Your task to perform on an android device: Search for "macbook air" on amazon.com, select the first entry, add it to the cart, then select checkout. Image 0: 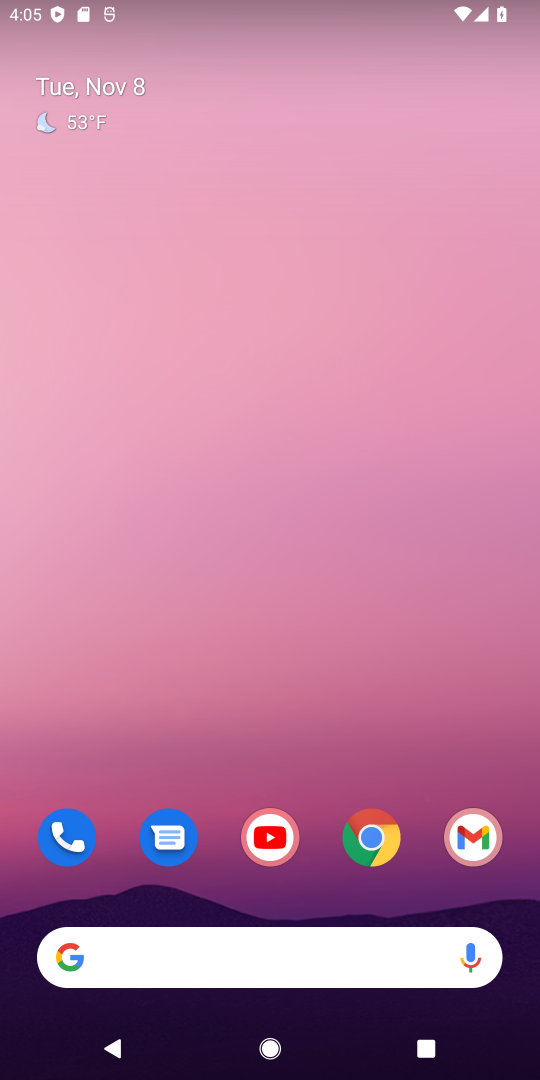
Step 0: press home button
Your task to perform on an android device: Search for "macbook air" on amazon.com, select the first entry, add it to the cart, then select checkout. Image 1: 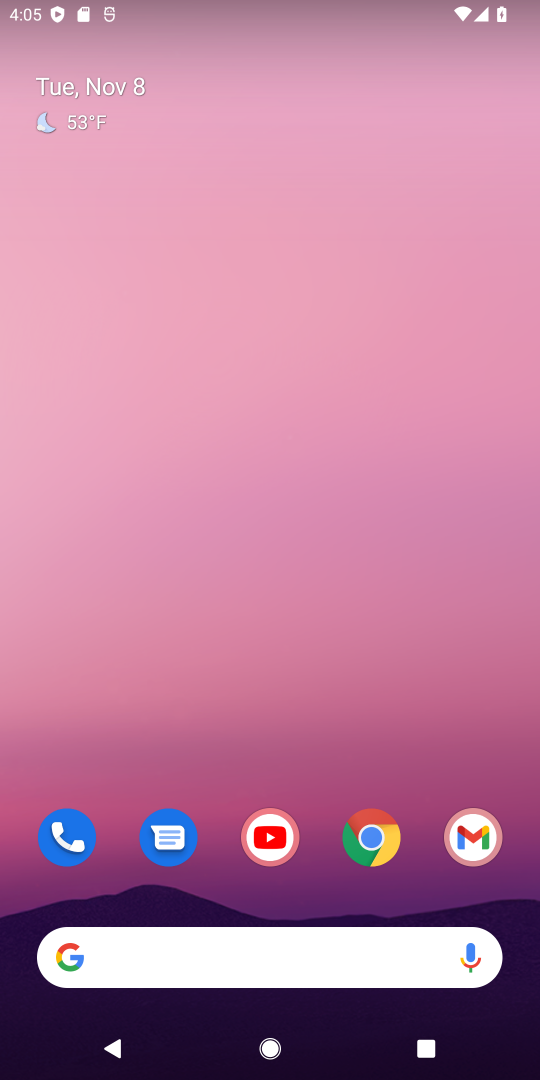
Step 1: click (388, 848)
Your task to perform on an android device: Search for "macbook air" on amazon.com, select the first entry, add it to the cart, then select checkout. Image 2: 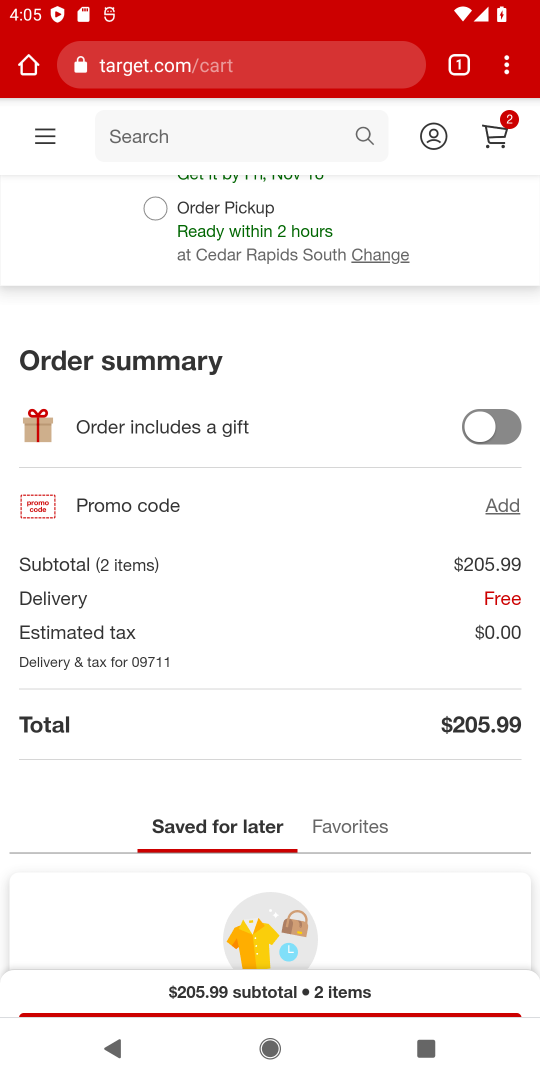
Step 2: click (148, 62)
Your task to perform on an android device: Search for "macbook air" on amazon.com, select the first entry, add it to the cart, then select checkout. Image 3: 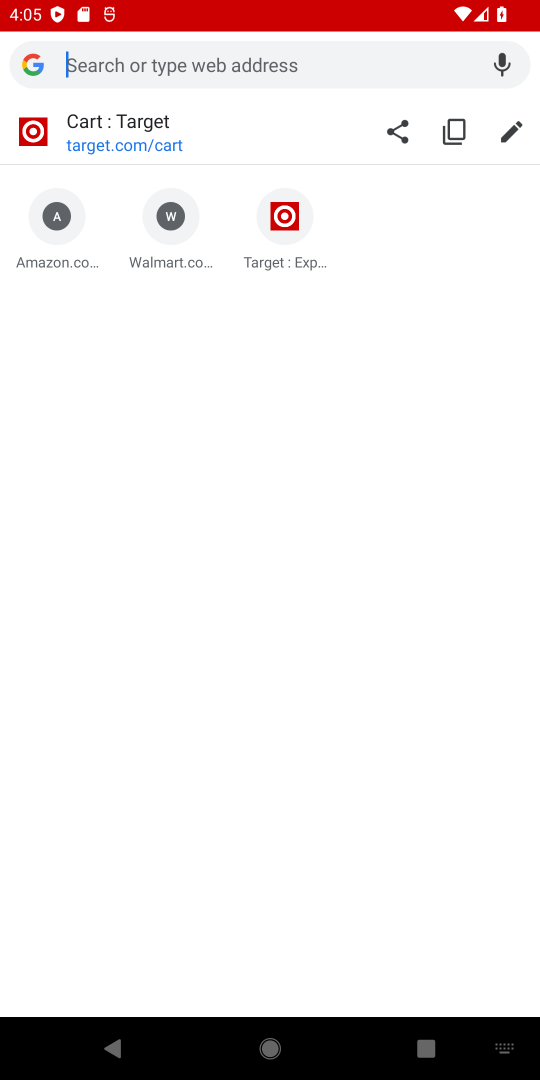
Step 3: type "amazon"
Your task to perform on an android device: Search for "macbook air" on amazon.com, select the first entry, add it to the cart, then select checkout. Image 4: 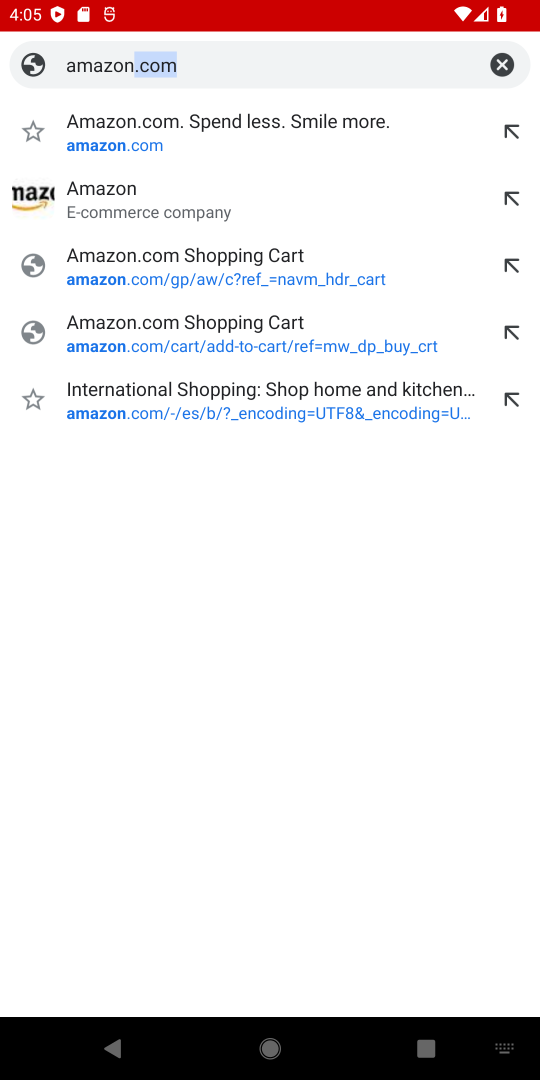
Step 4: click (108, 200)
Your task to perform on an android device: Search for "macbook air" on amazon.com, select the first entry, add it to the cart, then select checkout. Image 5: 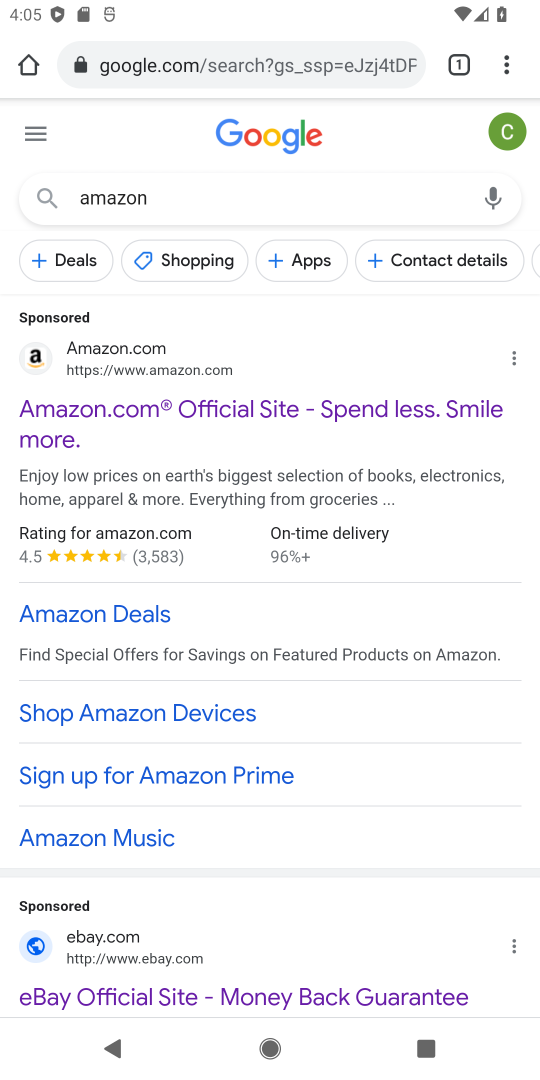
Step 5: click (78, 411)
Your task to perform on an android device: Search for "macbook air" on amazon.com, select the first entry, add it to the cart, then select checkout. Image 6: 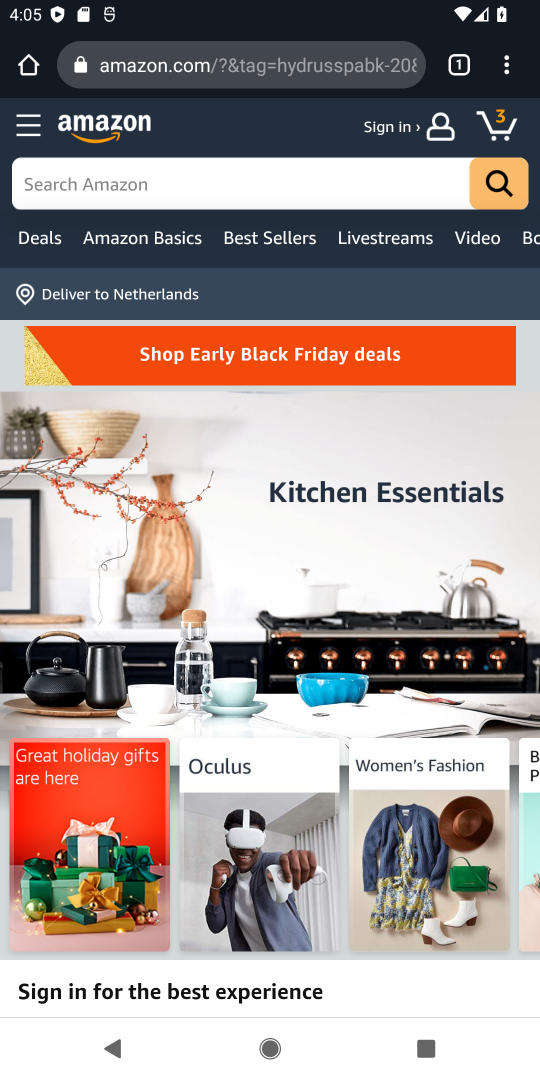
Step 6: click (66, 176)
Your task to perform on an android device: Search for "macbook air" on amazon.com, select the first entry, add it to the cart, then select checkout. Image 7: 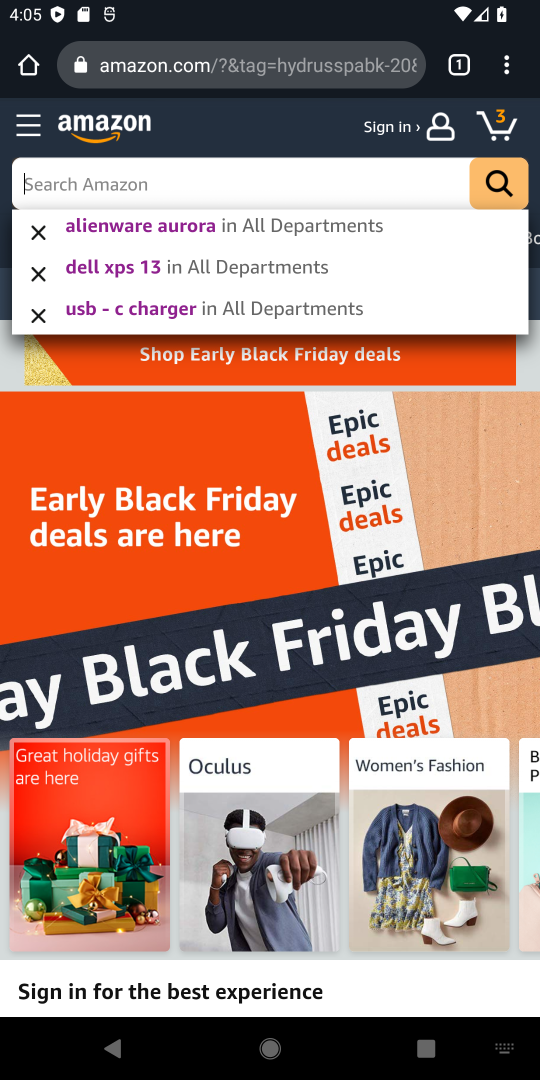
Step 7: type "macbook air"
Your task to perform on an android device: Search for "macbook air" on amazon.com, select the first entry, add it to the cart, then select checkout. Image 8: 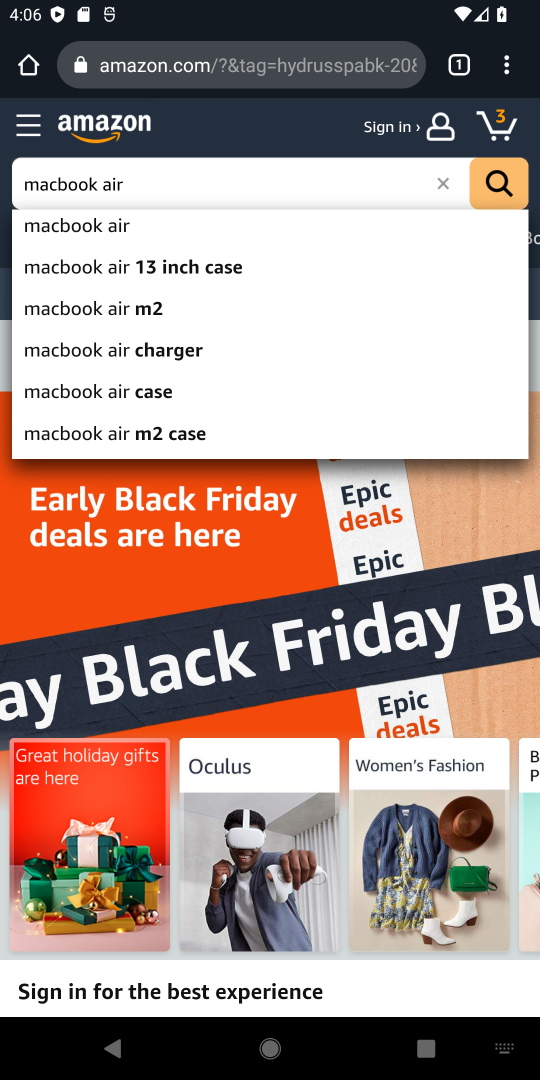
Step 8: click (65, 207)
Your task to perform on an android device: Search for "macbook air" on amazon.com, select the first entry, add it to the cart, then select checkout. Image 9: 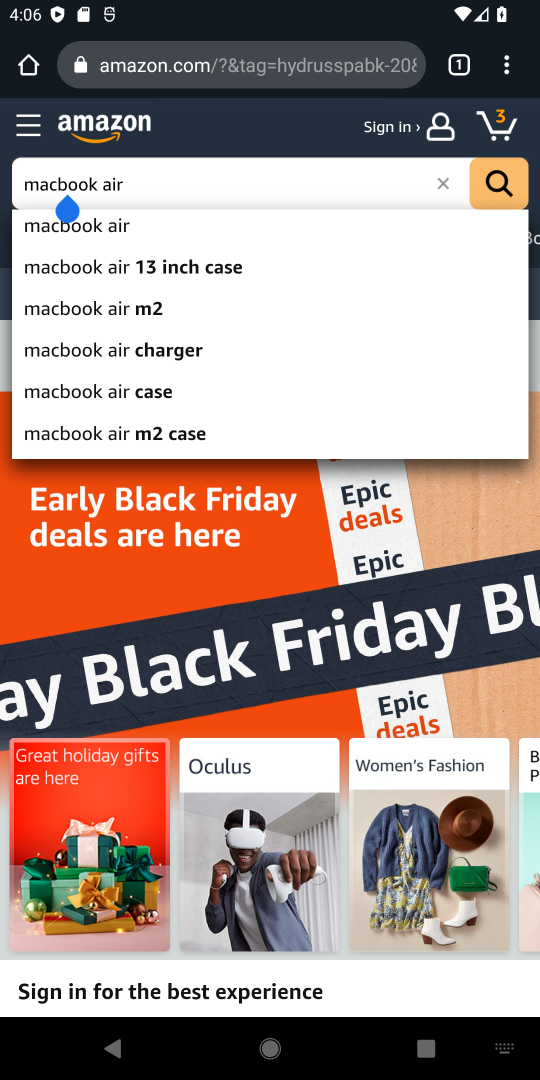
Step 9: click (115, 270)
Your task to perform on an android device: Search for "macbook air" on amazon.com, select the first entry, add it to the cart, then select checkout. Image 10: 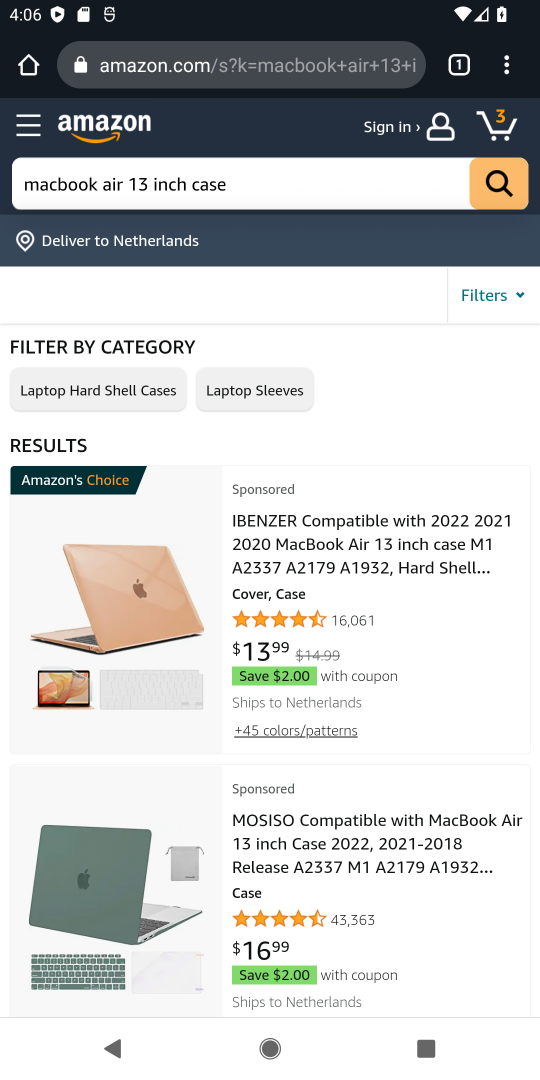
Step 10: drag from (92, 804) to (343, 387)
Your task to perform on an android device: Search for "macbook air" on amazon.com, select the first entry, add it to the cart, then select checkout. Image 11: 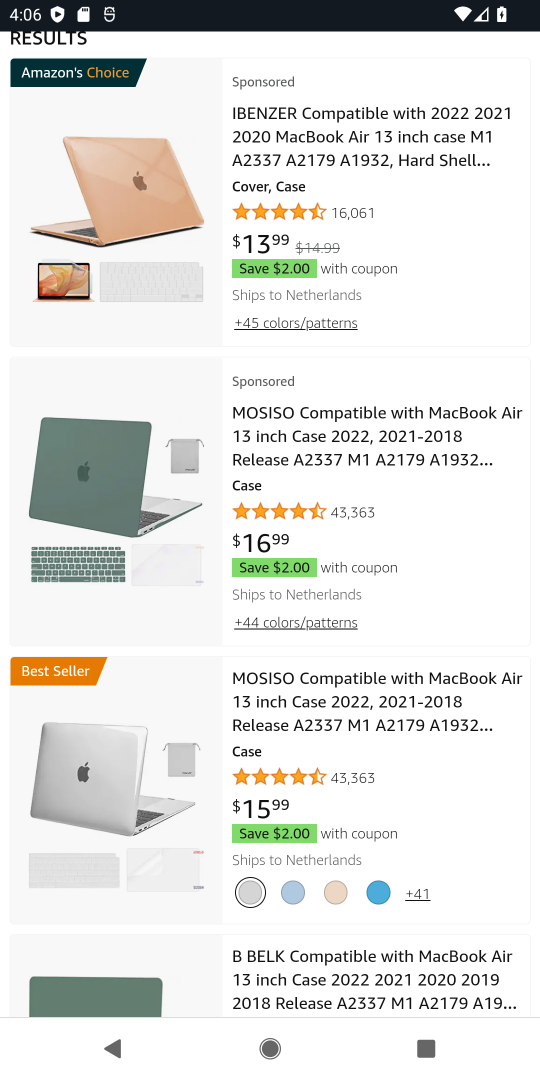
Step 11: click (342, 671)
Your task to perform on an android device: Search for "macbook air" on amazon.com, select the first entry, add it to the cart, then select checkout. Image 12: 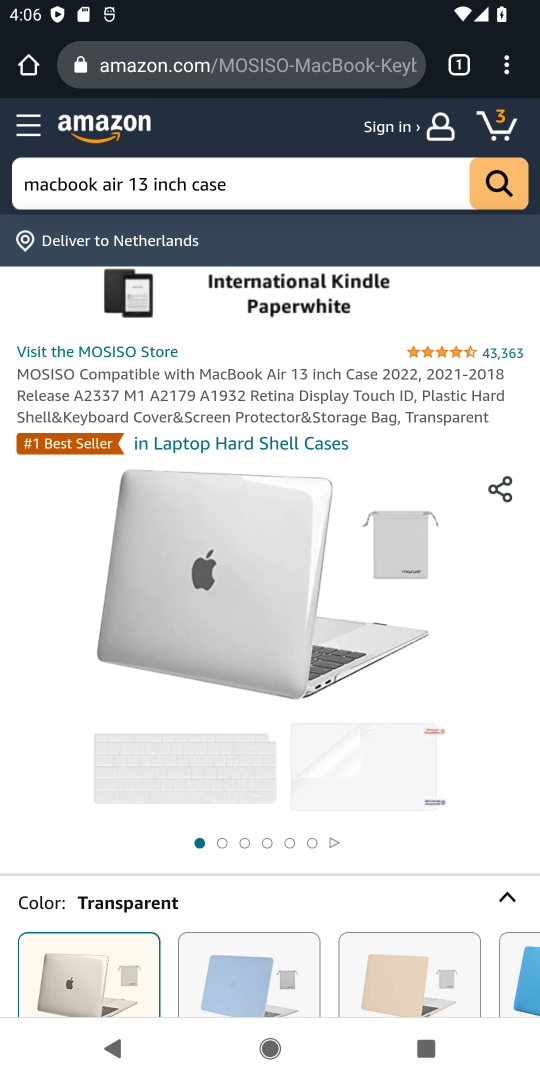
Step 12: drag from (294, 661) to (361, 238)
Your task to perform on an android device: Search for "macbook air" on amazon.com, select the first entry, add it to the cart, then select checkout. Image 13: 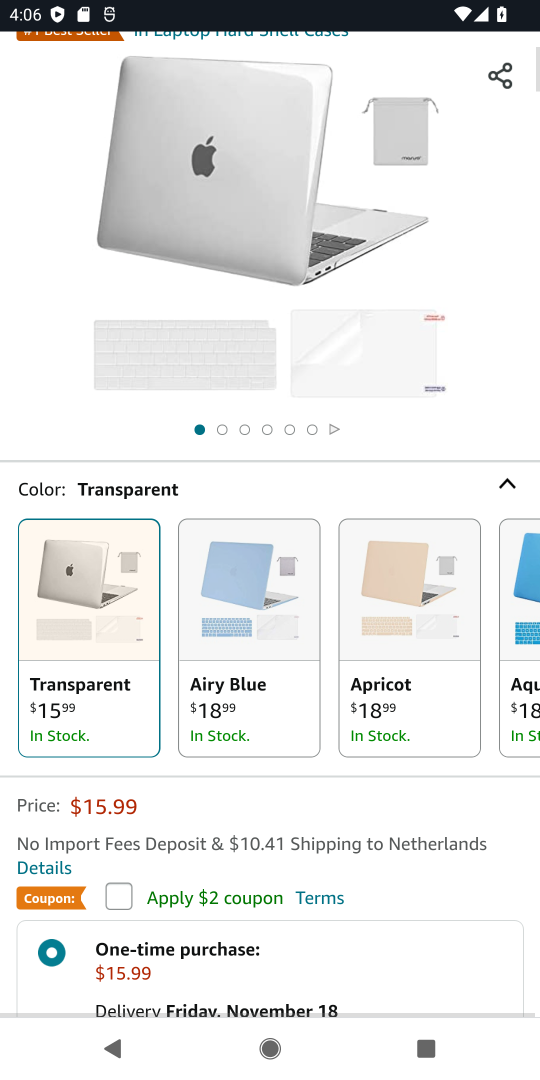
Step 13: drag from (186, 932) to (212, 404)
Your task to perform on an android device: Search for "macbook air" on amazon.com, select the first entry, add it to the cart, then select checkout. Image 14: 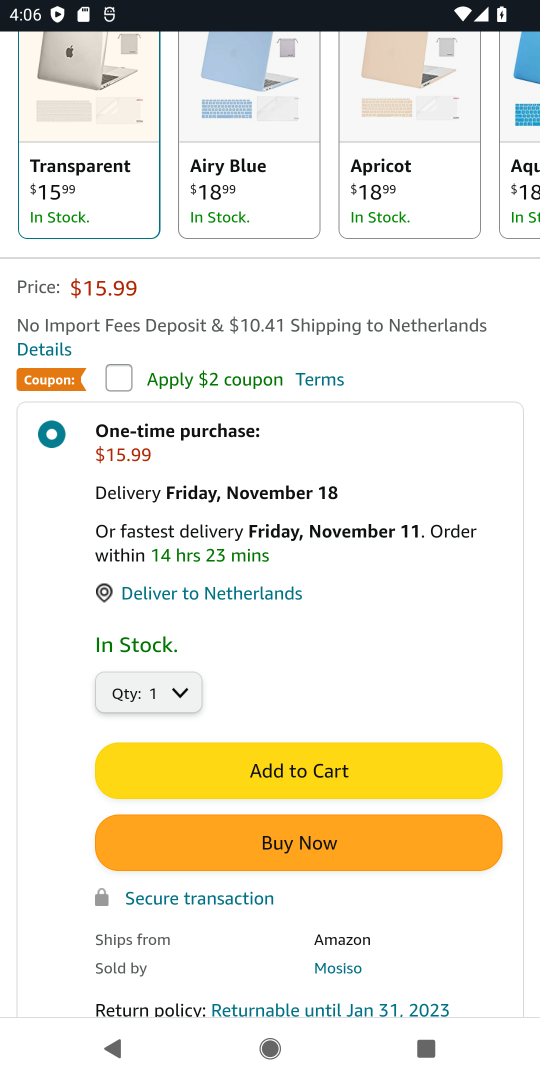
Step 14: click (307, 768)
Your task to perform on an android device: Search for "macbook air" on amazon.com, select the first entry, add it to the cart, then select checkout. Image 15: 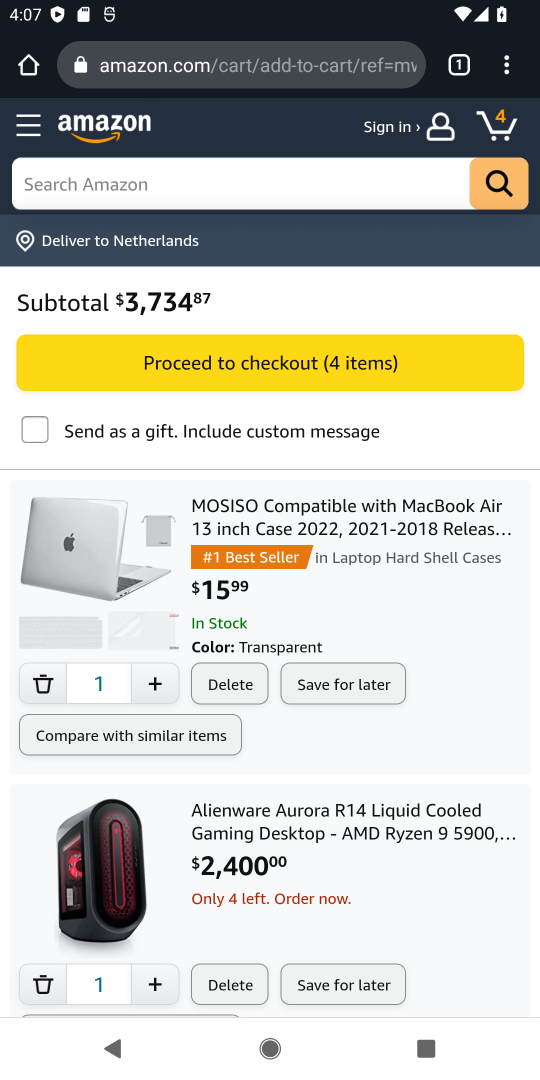
Step 15: drag from (318, 835) to (331, 409)
Your task to perform on an android device: Search for "macbook air" on amazon.com, select the first entry, add it to the cart, then select checkout. Image 16: 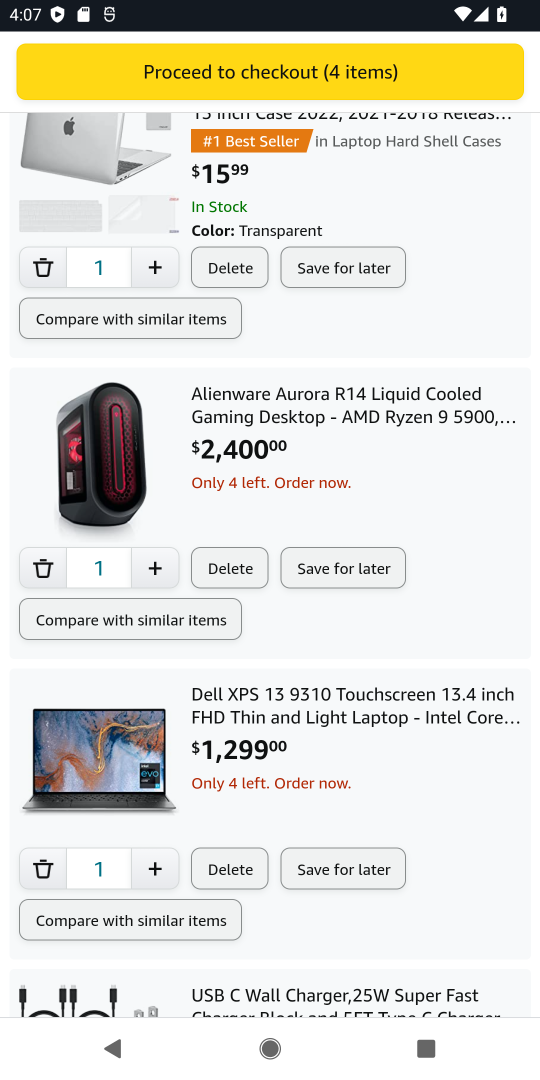
Step 16: drag from (328, 852) to (476, 424)
Your task to perform on an android device: Search for "macbook air" on amazon.com, select the first entry, add it to the cart, then select checkout. Image 17: 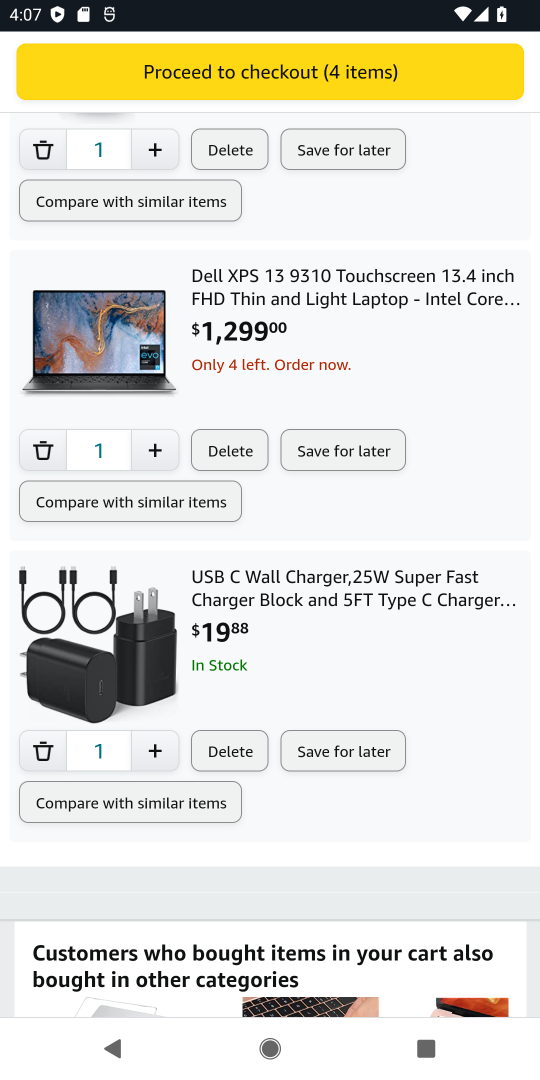
Step 17: click (267, 71)
Your task to perform on an android device: Search for "macbook air" on amazon.com, select the first entry, add it to the cart, then select checkout. Image 18: 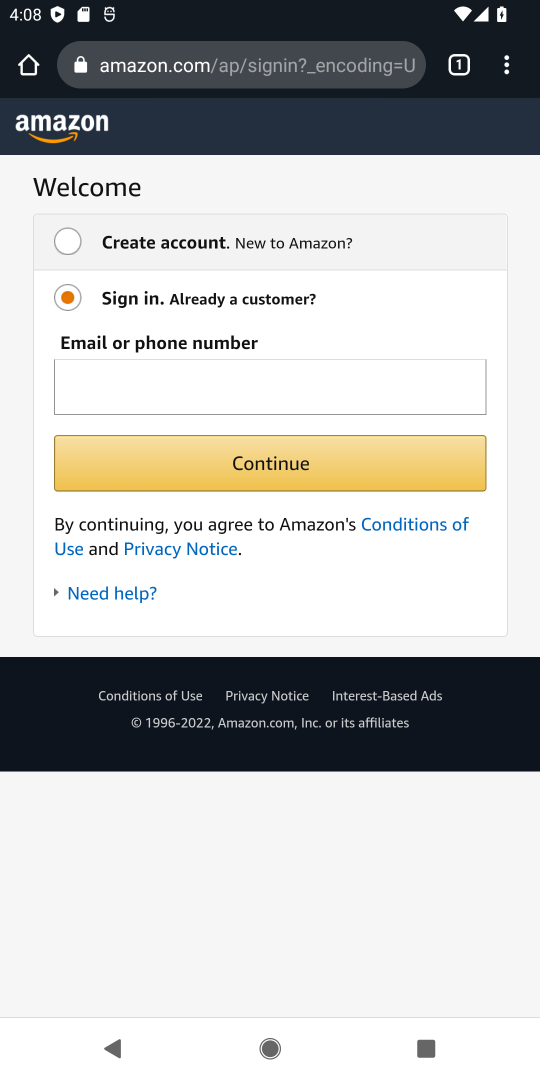
Step 18: task complete